Your task to perform on an android device: What's the weather? Image 0: 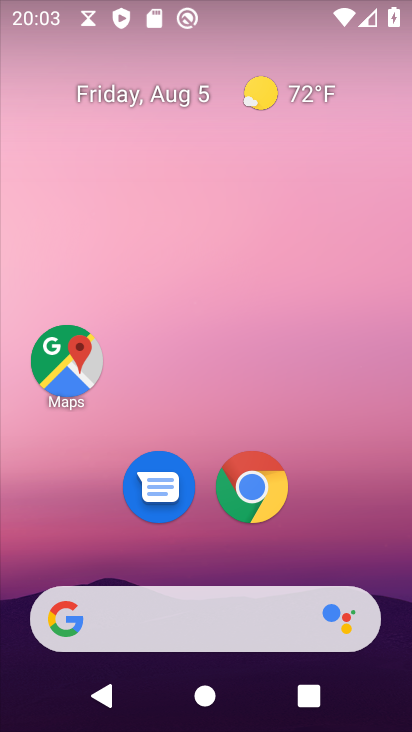
Step 0: click (156, 616)
Your task to perform on an android device: What's the weather? Image 1: 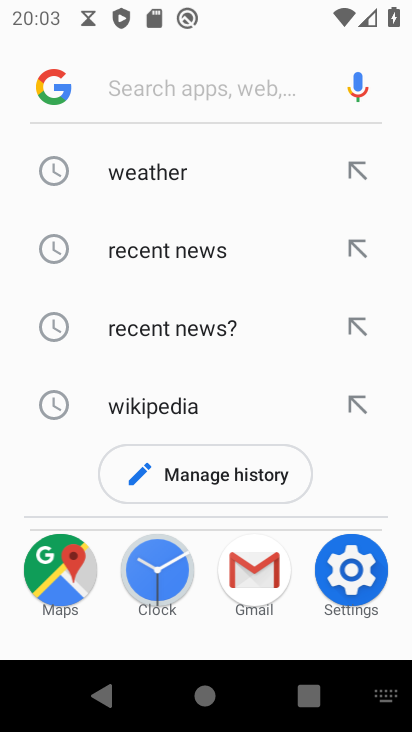
Step 1: click (176, 174)
Your task to perform on an android device: What's the weather? Image 2: 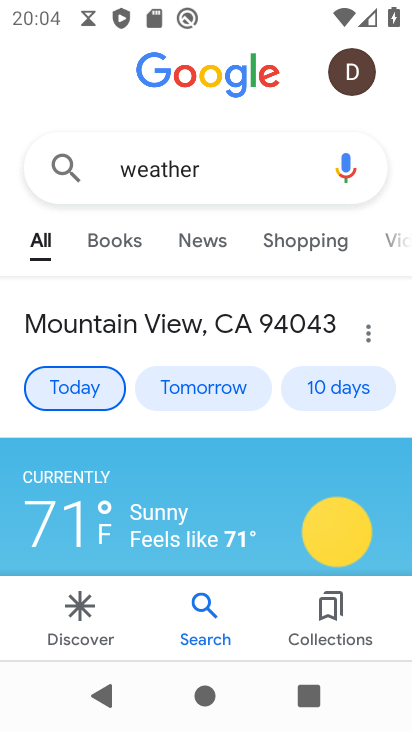
Step 2: task complete